Your task to perform on an android device: Empty the shopping cart on newegg.com. Add jbl charge 4 to the cart on newegg.com, then select checkout. Image 0: 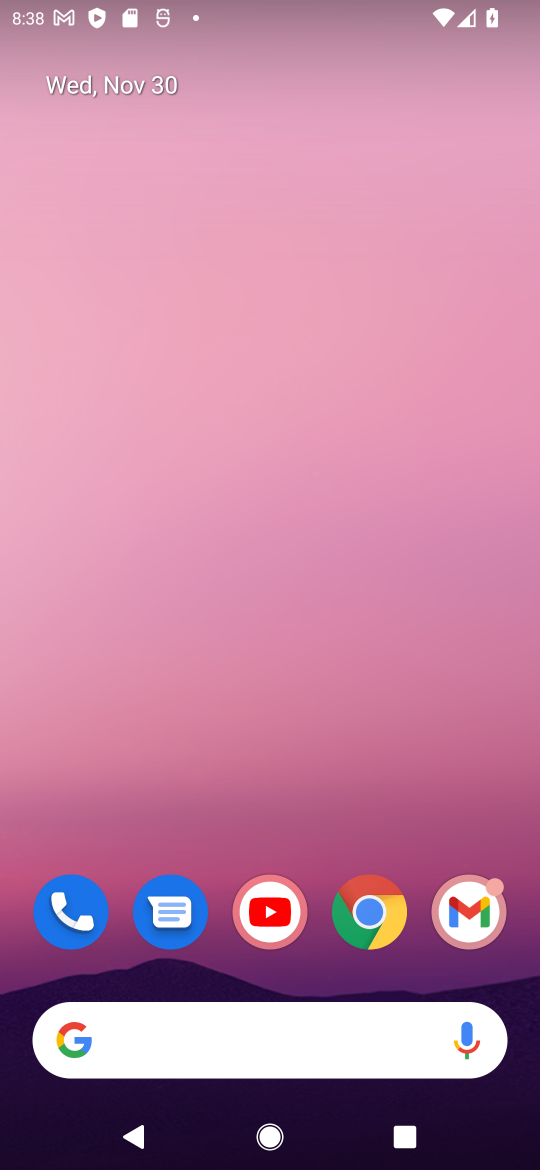
Step 0: click (263, 1017)
Your task to perform on an android device: Empty the shopping cart on newegg.com. Add jbl charge 4 to the cart on newegg.com, then select checkout. Image 1: 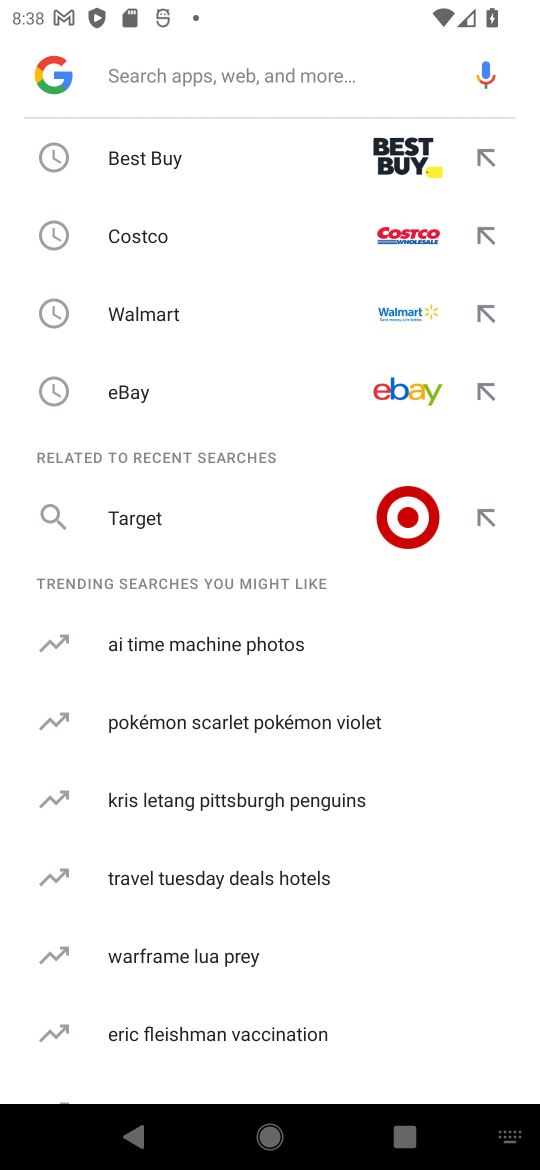
Step 1: type "newegg.com."
Your task to perform on an android device: Empty the shopping cart on newegg.com. Add jbl charge 4 to the cart on newegg.com, then select checkout. Image 2: 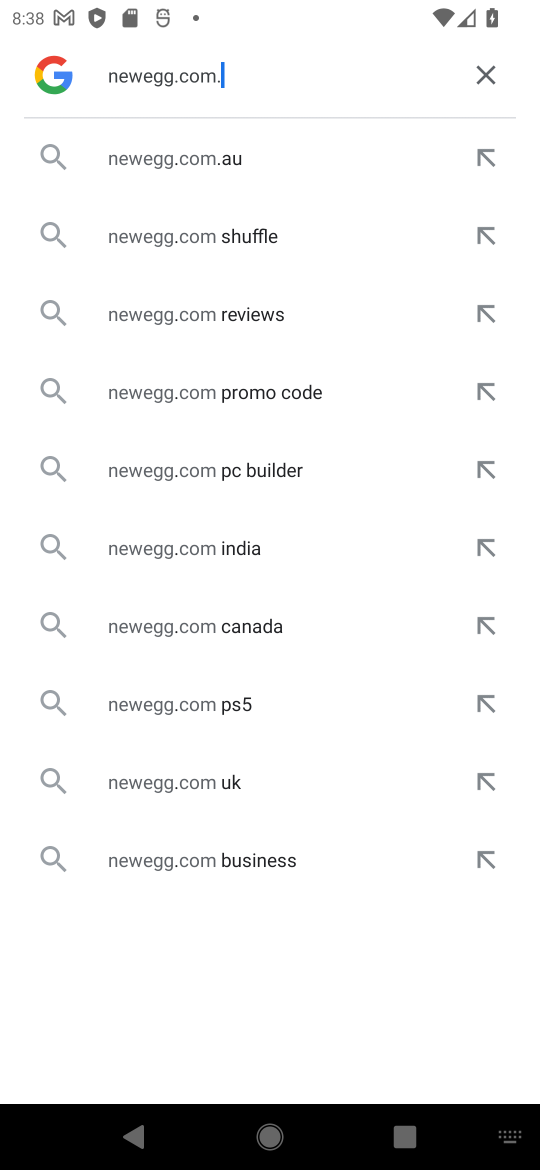
Step 2: click (202, 549)
Your task to perform on an android device: Empty the shopping cart on newegg.com. Add jbl charge 4 to the cart on newegg.com, then select checkout. Image 3: 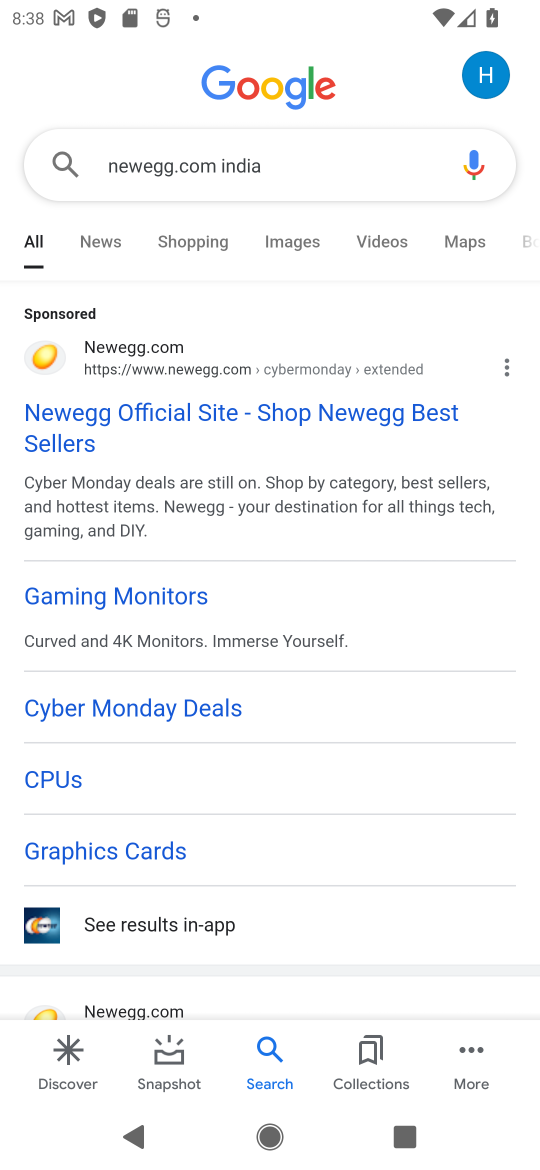
Step 3: click (102, 343)
Your task to perform on an android device: Empty the shopping cart on newegg.com. Add jbl charge 4 to the cart on newegg.com, then select checkout. Image 4: 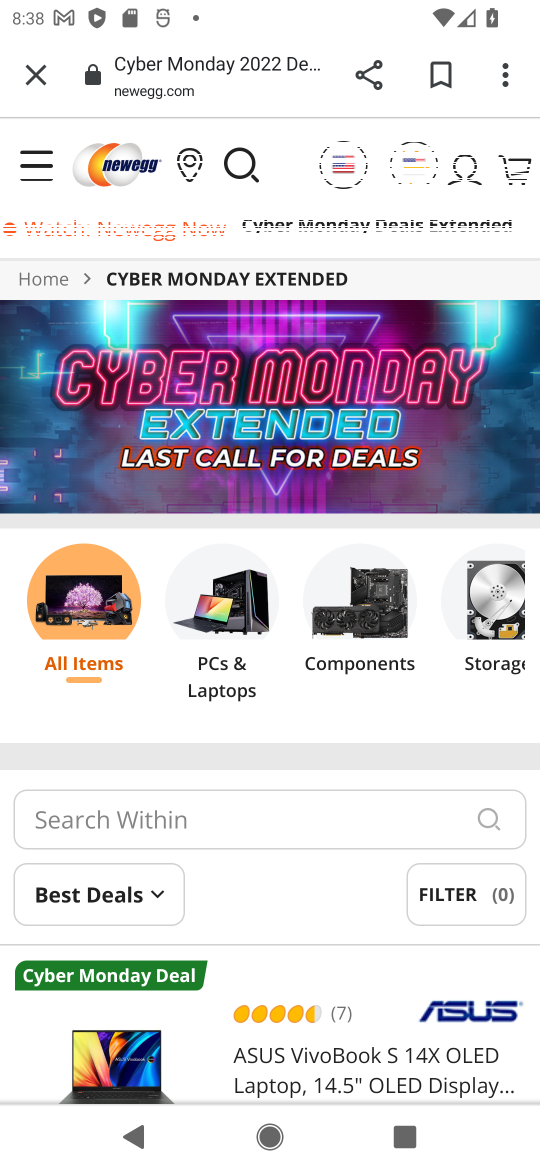
Step 4: click (240, 175)
Your task to perform on an android device: Empty the shopping cart on newegg.com. Add jbl charge 4 to the cart on newegg.com, then select checkout. Image 5: 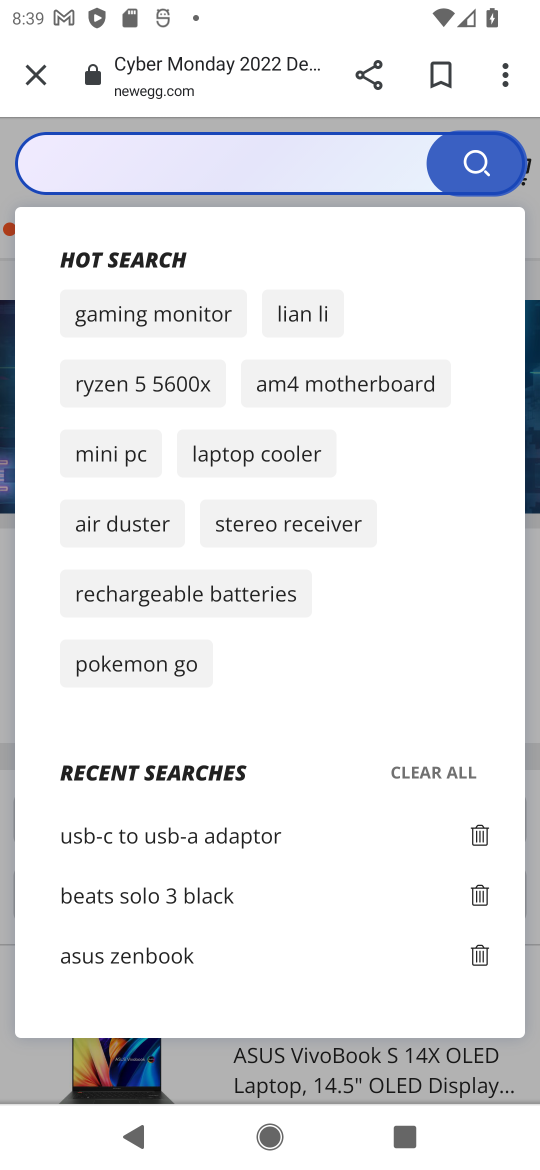
Step 5: press back button
Your task to perform on an android device: Empty the shopping cart on newegg.com. Add jbl charge 4 to the cart on newegg.com, then select checkout. Image 6: 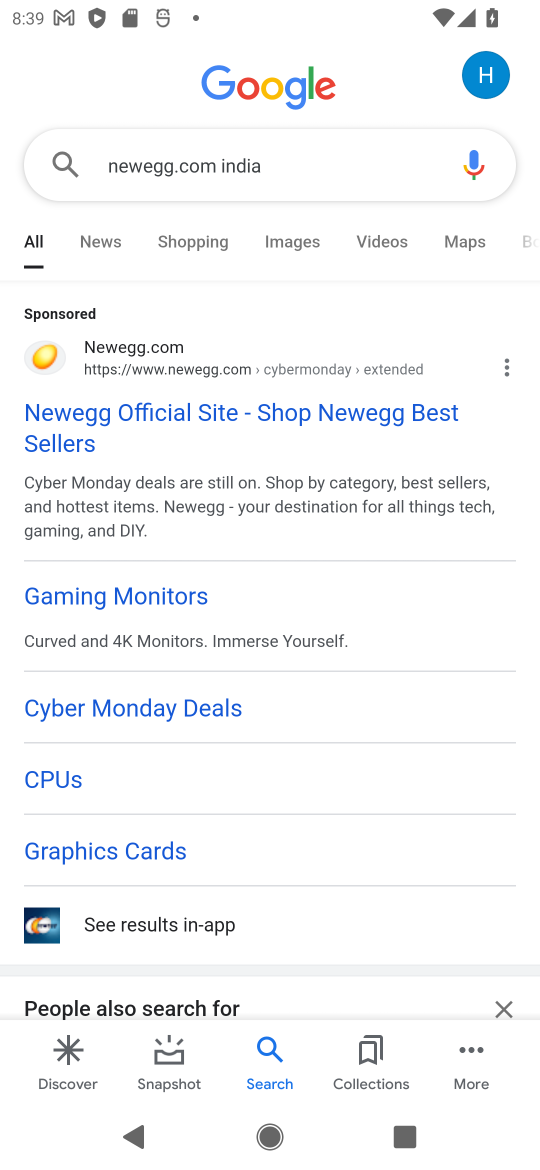
Step 6: click (272, 406)
Your task to perform on an android device: Empty the shopping cart on newegg.com. Add jbl charge 4 to the cart on newegg.com, then select checkout. Image 7: 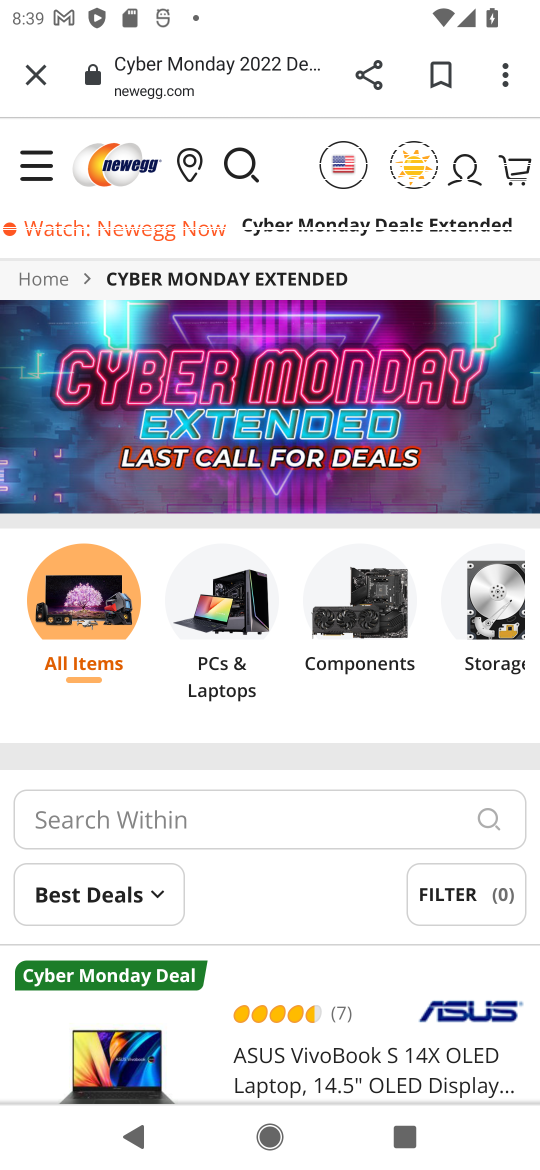
Step 7: click (511, 173)
Your task to perform on an android device: Empty the shopping cart on newegg.com. Add jbl charge 4 to the cart on newegg.com, then select checkout. Image 8: 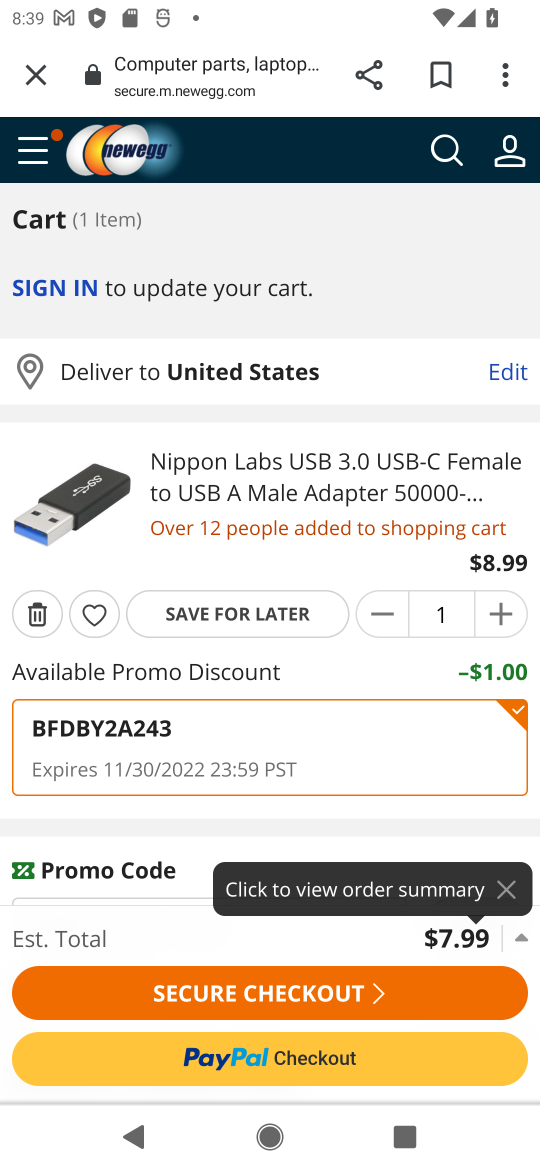
Step 8: click (42, 615)
Your task to perform on an android device: Empty the shopping cart on newegg.com. Add jbl charge 4 to the cart on newegg.com, then select checkout. Image 9: 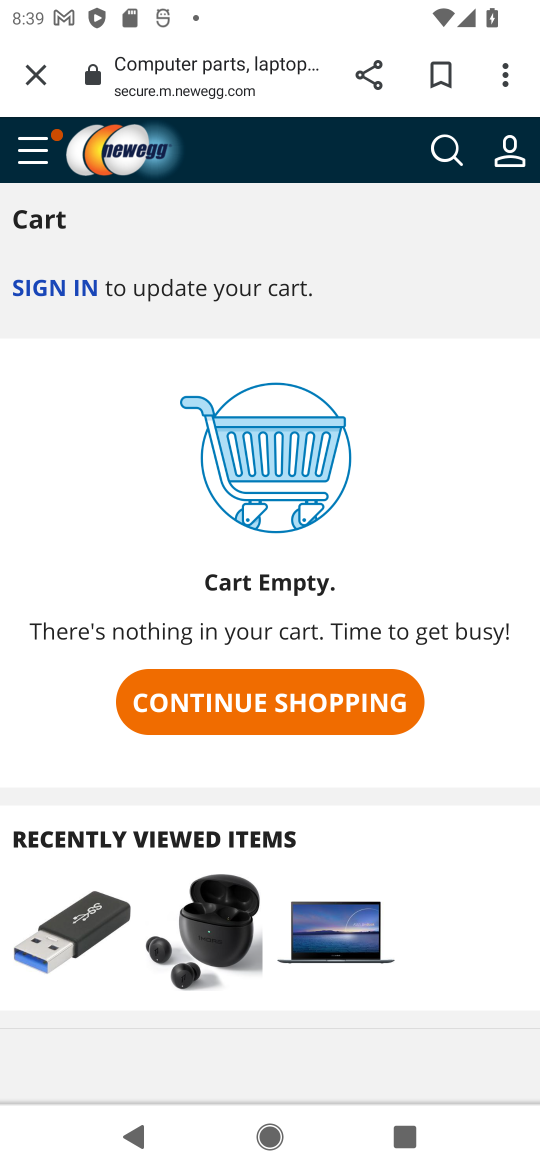
Step 9: click (447, 153)
Your task to perform on an android device: Empty the shopping cart on newegg.com. Add jbl charge 4 to the cart on newegg.com, then select checkout. Image 10: 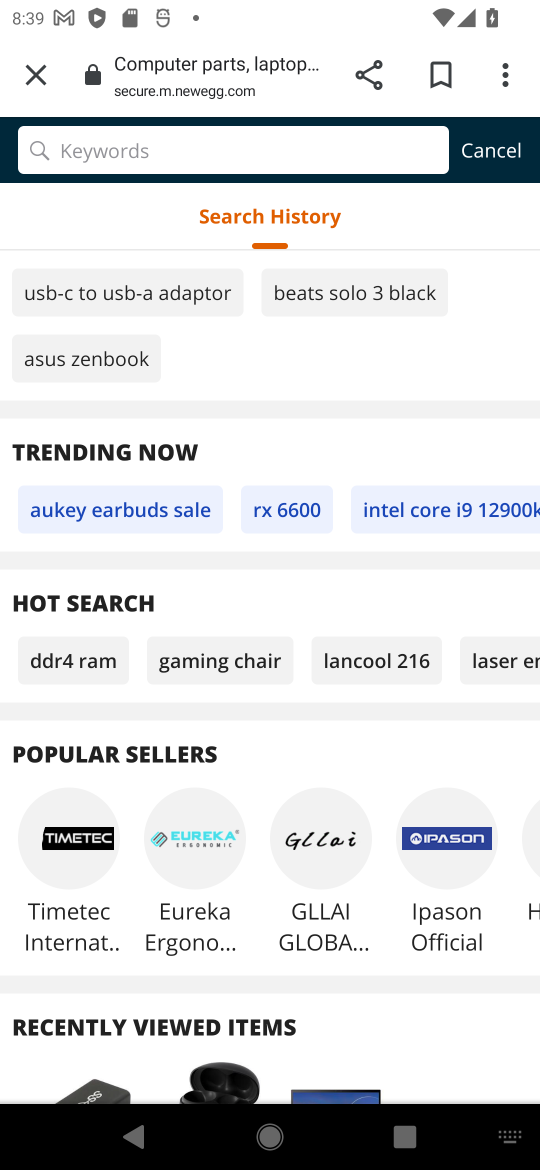
Step 10: type "jbl charge 4 "
Your task to perform on an android device: Empty the shopping cart on newegg.com. Add jbl charge 4 to the cart on newegg.com, then select checkout. Image 11: 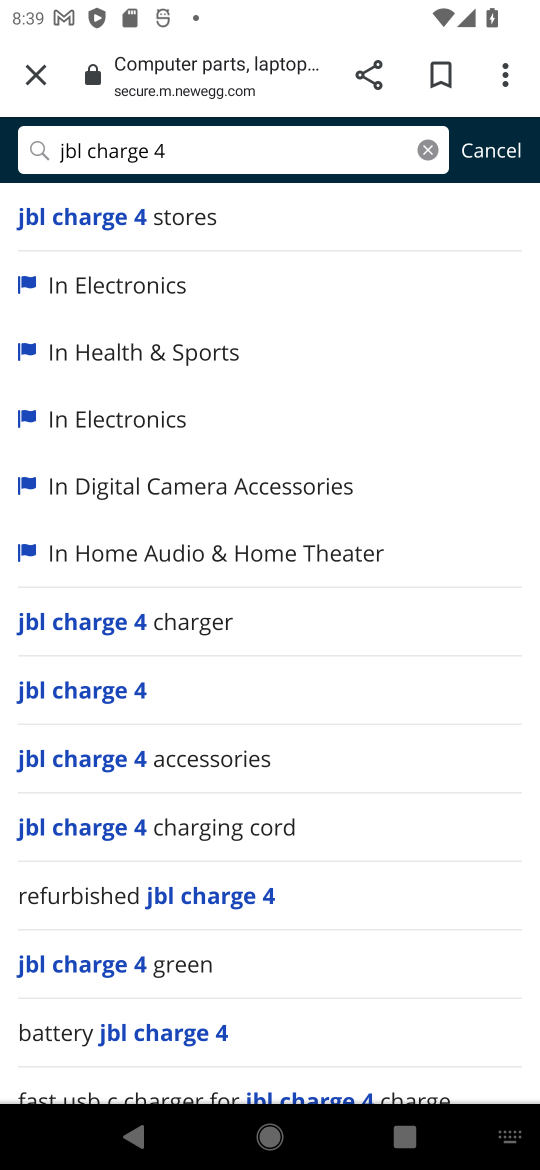
Step 11: click (129, 211)
Your task to perform on an android device: Empty the shopping cart on newegg.com. Add jbl charge 4 to the cart on newegg.com, then select checkout. Image 12: 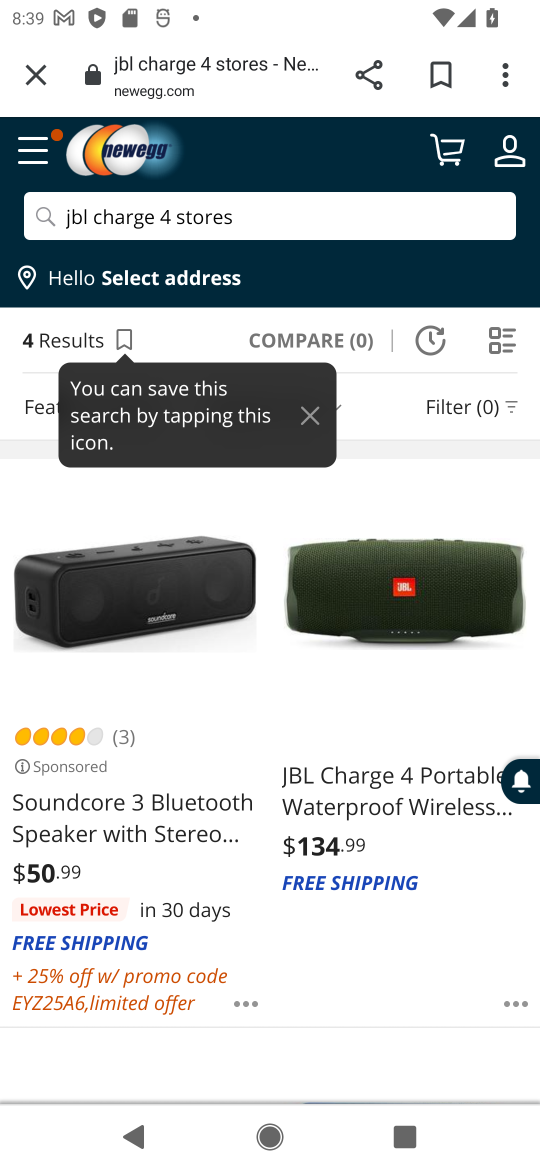
Step 12: click (56, 720)
Your task to perform on an android device: Empty the shopping cart on newegg.com. Add jbl charge 4 to the cart on newegg.com, then select checkout. Image 13: 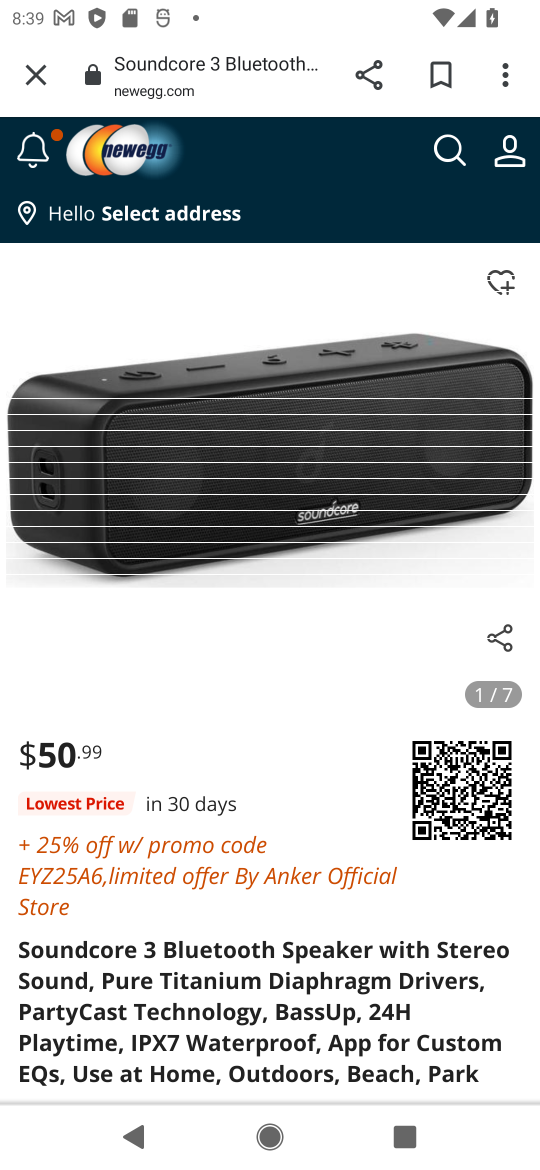
Step 13: click (285, 1077)
Your task to perform on an android device: Empty the shopping cart on newegg.com. Add jbl charge 4 to the cart on newegg.com, then select checkout. Image 14: 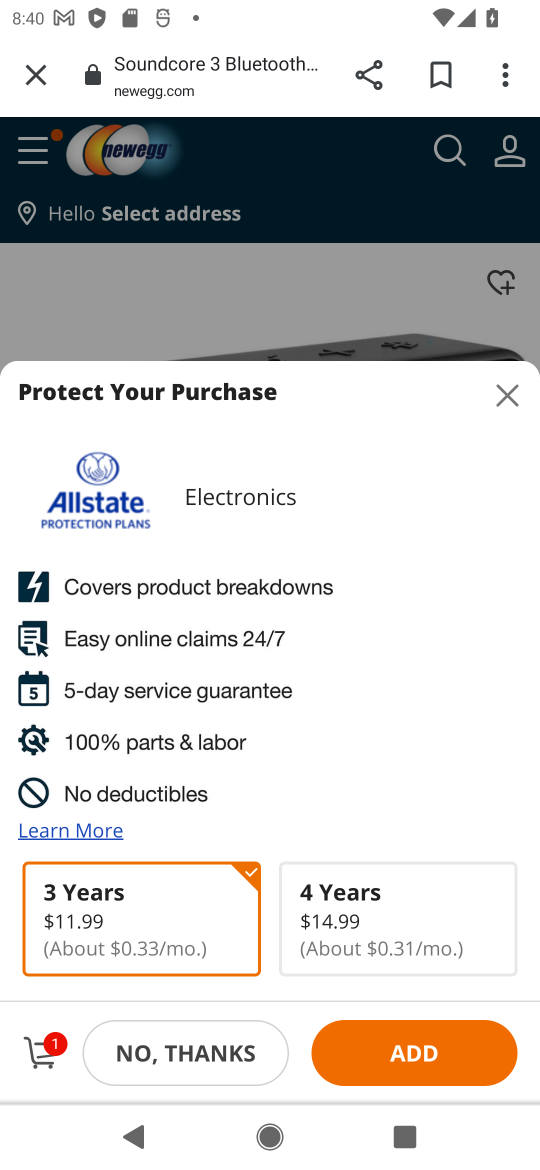
Step 14: click (44, 1051)
Your task to perform on an android device: Empty the shopping cart on newegg.com. Add jbl charge 4 to the cart on newegg.com, then select checkout. Image 15: 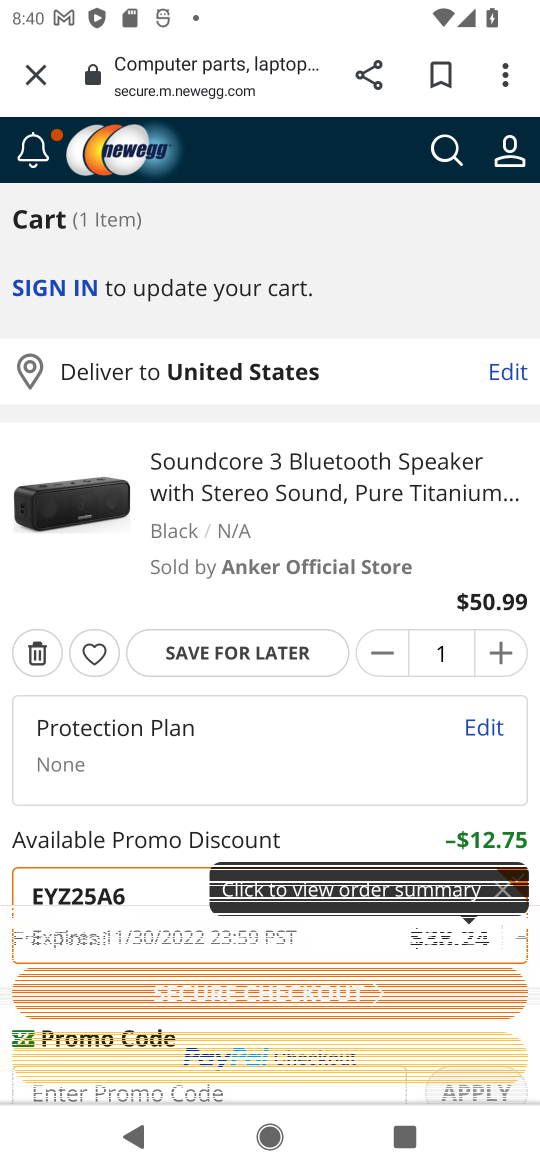
Step 15: click (304, 997)
Your task to perform on an android device: Empty the shopping cart on newegg.com. Add jbl charge 4 to the cart on newegg.com, then select checkout. Image 16: 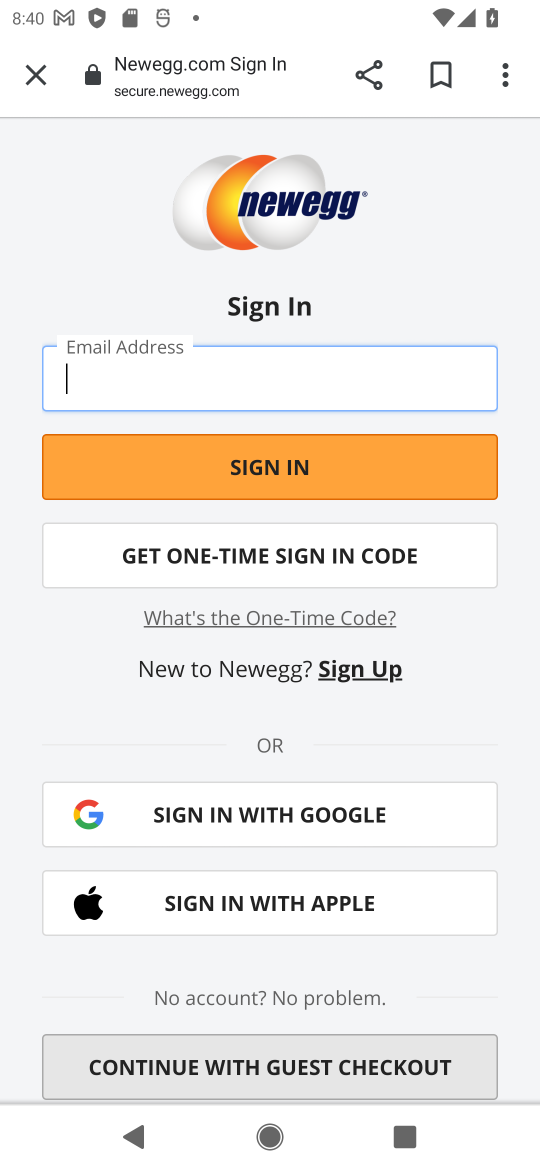
Step 16: task complete